Your task to perform on an android device: turn off location Image 0: 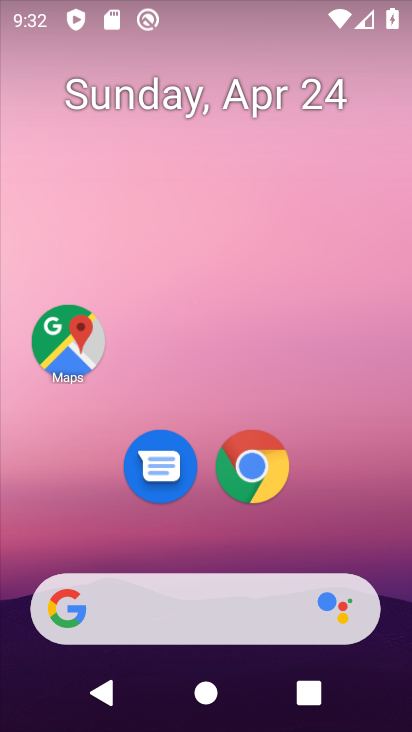
Step 0: drag from (364, 532) to (364, 0)
Your task to perform on an android device: turn off location Image 1: 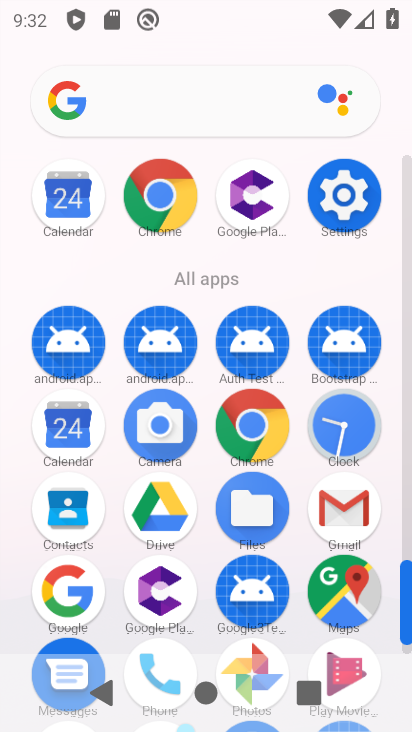
Step 1: click (341, 208)
Your task to perform on an android device: turn off location Image 2: 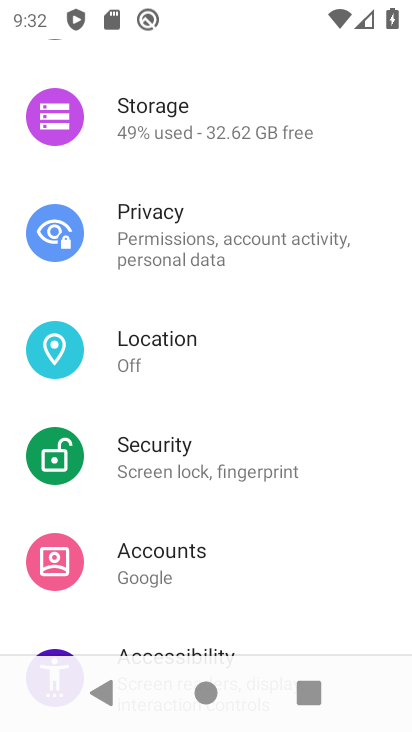
Step 2: click (167, 342)
Your task to perform on an android device: turn off location Image 3: 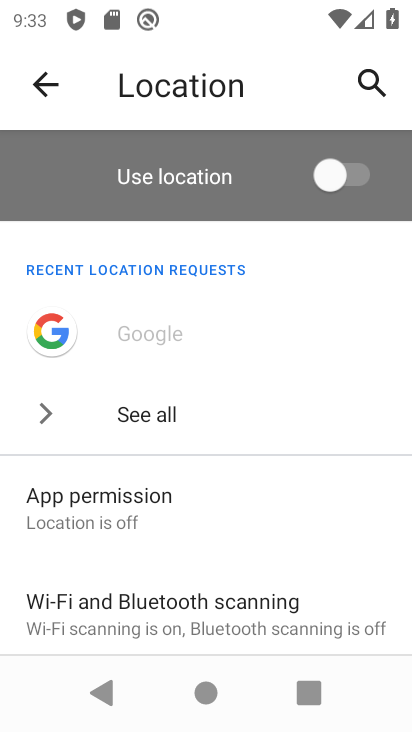
Step 3: task complete